Your task to perform on an android device: Open the phone app and click the voicemail tab. Image 0: 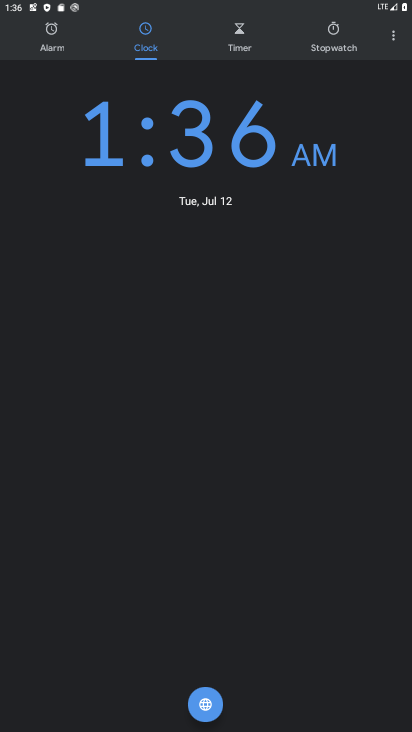
Step 0: press home button
Your task to perform on an android device: Open the phone app and click the voicemail tab. Image 1: 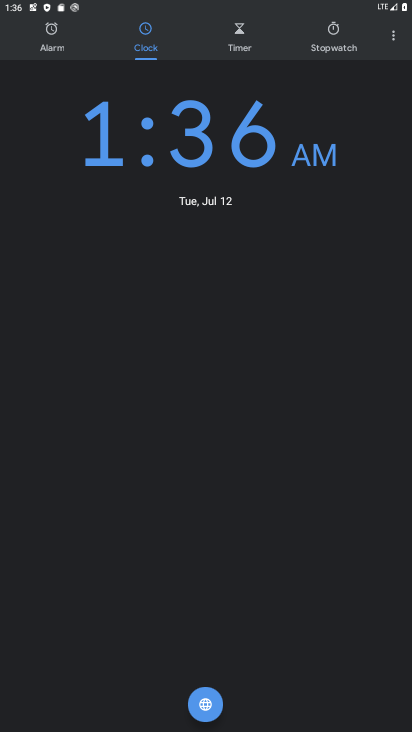
Step 1: press home button
Your task to perform on an android device: Open the phone app and click the voicemail tab. Image 2: 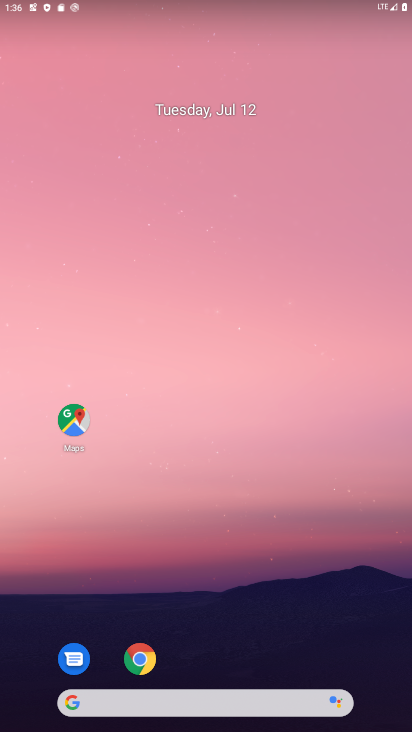
Step 2: click (218, 729)
Your task to perform on an android device: Open the phone app and click the voicemail tab. Image 3: 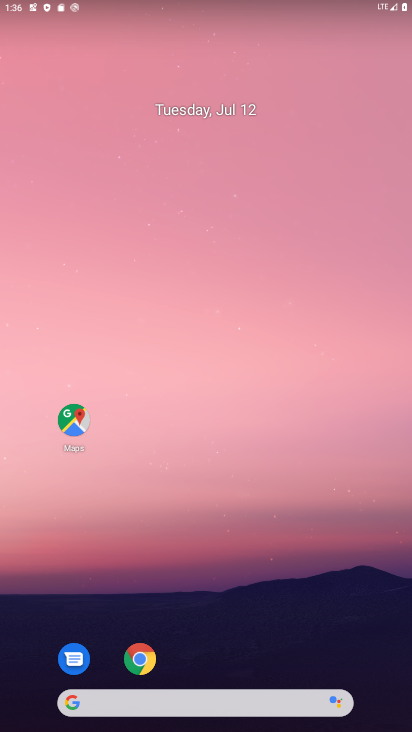
Step 3: drag from (218, 361) to (219, 308)
Your task to perform on an android device: Open the phone app and click the voicemail tab. Image 4: 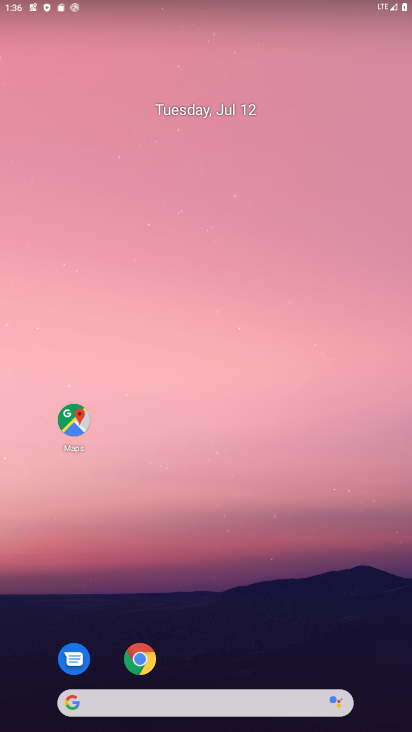
Step 4: drag from (230, 721) to (235, 397)
Your task to perform on an android device: Open the phone app and click the voicemail tab. Image 5: 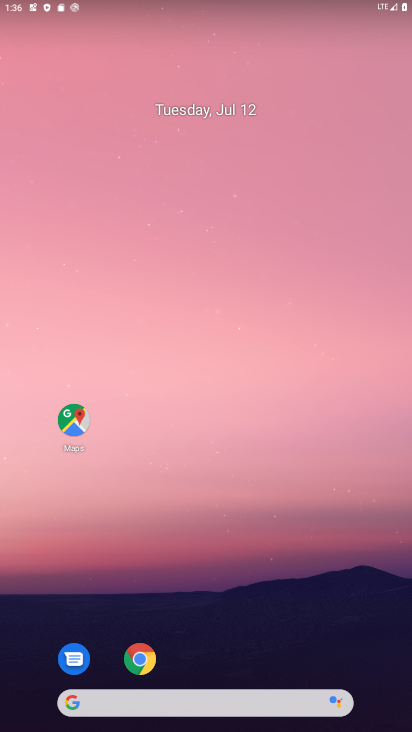
Step 5: drag from (242, 719) to (242, 177)
Your task to perform on an android device: Open the phone app and click the voicemail tab. Image 6: 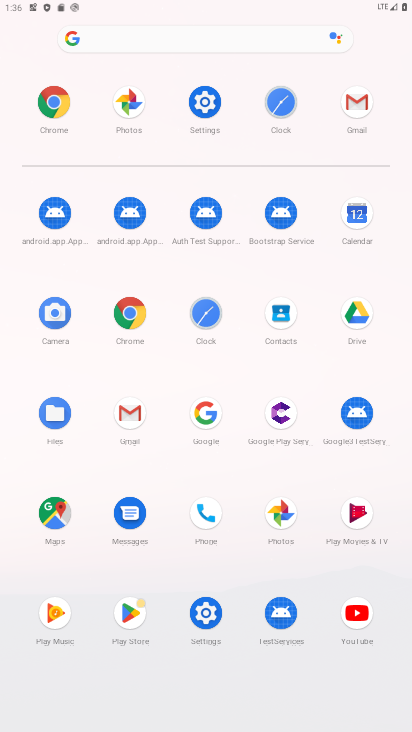
Step 6: click (209, 516)
Your task to perform on an android device: Open the phone app and click the voicemail tab. Image 7: 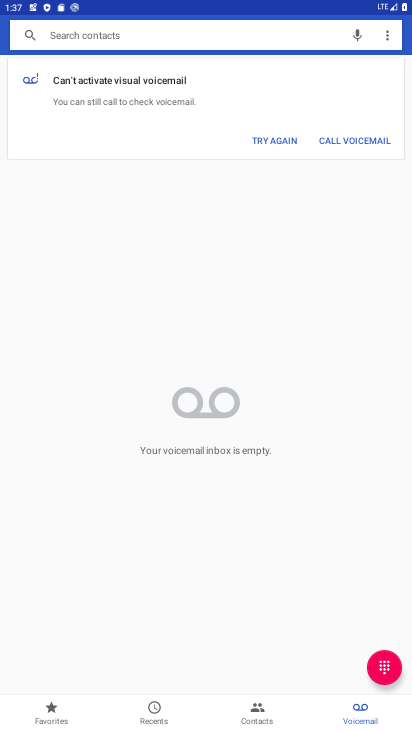
Step 7: task complete